Your task to perform on an android device: Go to CNN.com Image 0: 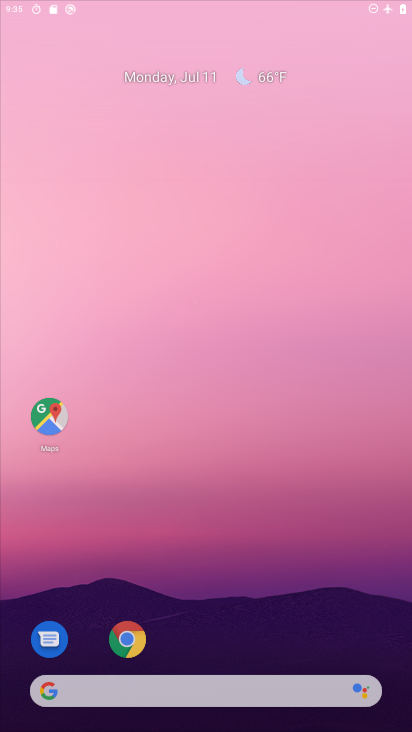
Step 0: click (235, 127)
Your task to perform on an android device: Go to CNN.com Image 1: 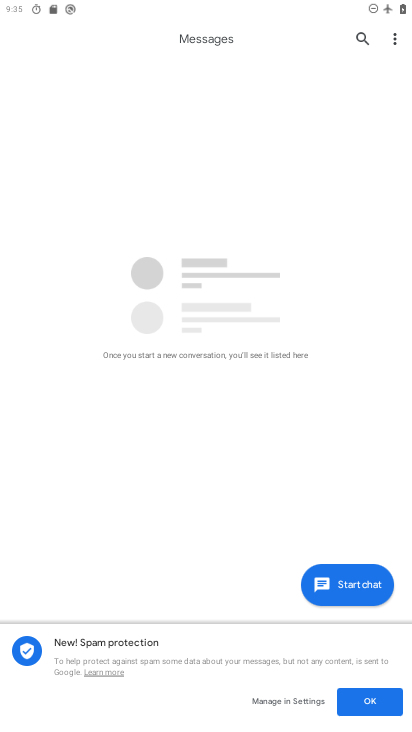
Step 1: press home button
Your task to perform on an android device: Go to CNN.com Image 2: 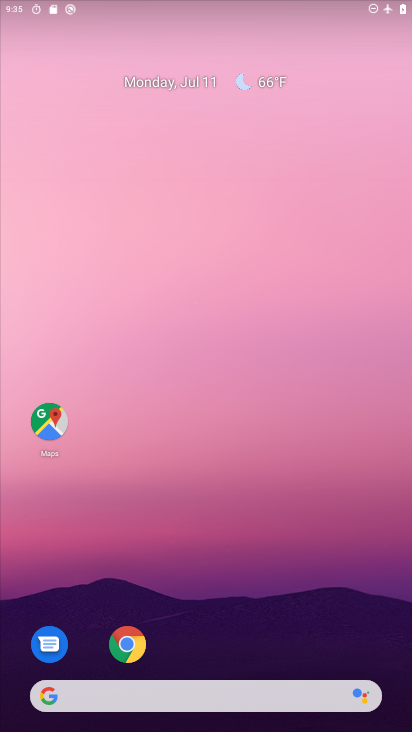
Step 2: drag from (272, 533) to (229, 105)
Your task to perform on an android device: Go to CNN.com Image 3: 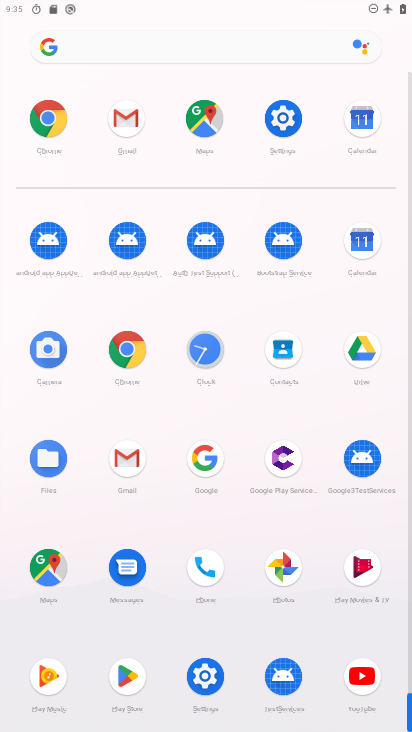
Step 3: click (125, 348)
Your task to perform on an android device: Go to CNN.com Image 4: 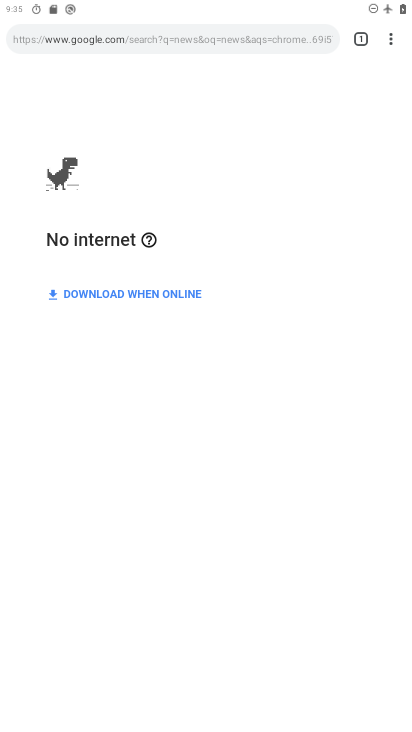
Step 4: click (158, 42)
Your task to perform on an android device: Go to CNN.com Image 5: 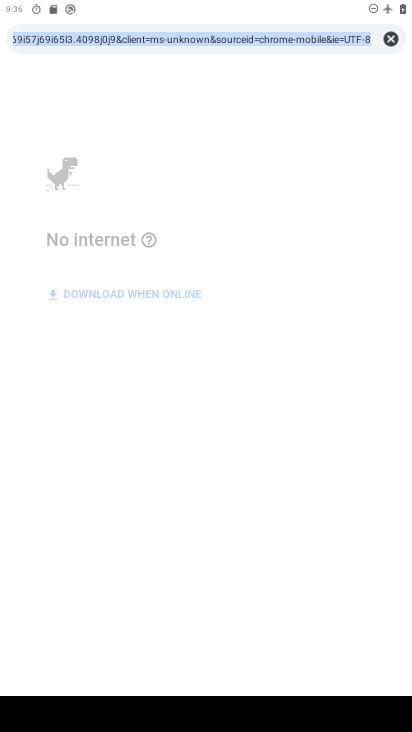
Step 5: type "cnn.com"
Your task to perform on an android device: Go to CNN.com Image 6: 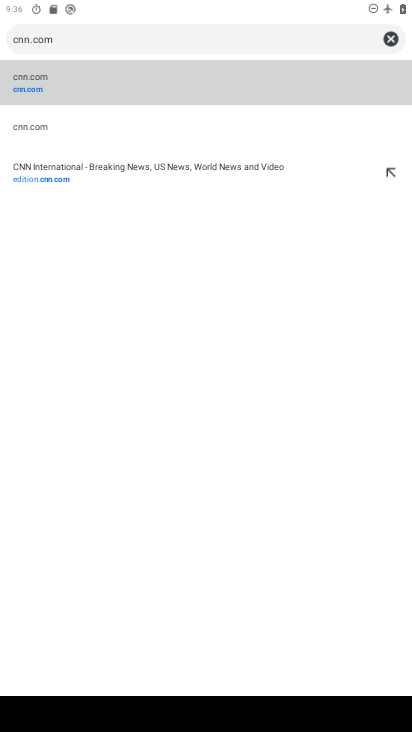
Step 6: click (41, 74)
Your task to perform on an android device: Go to CNN.com Image 7: 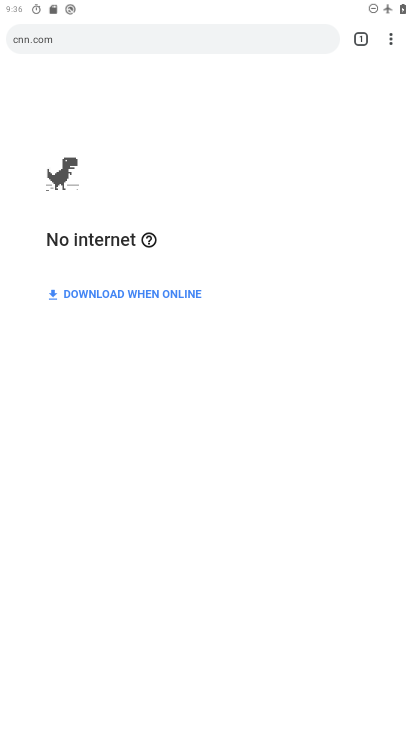
Step 7: task complete